Your task to perform on an android device: Open Google Chrome Image 0: 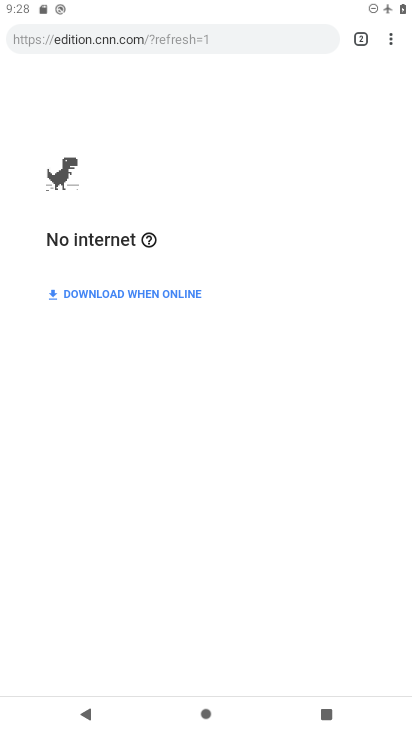
Step 0: press home button
Your task to perform on an android device: Open Google Chrome Image 1: 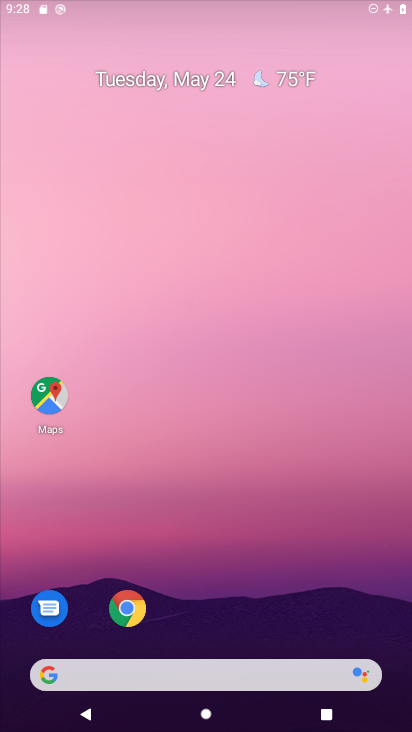
Step 1: click (132, 606)
Your task to perform on an android device: Open Google Chrome Image 2: 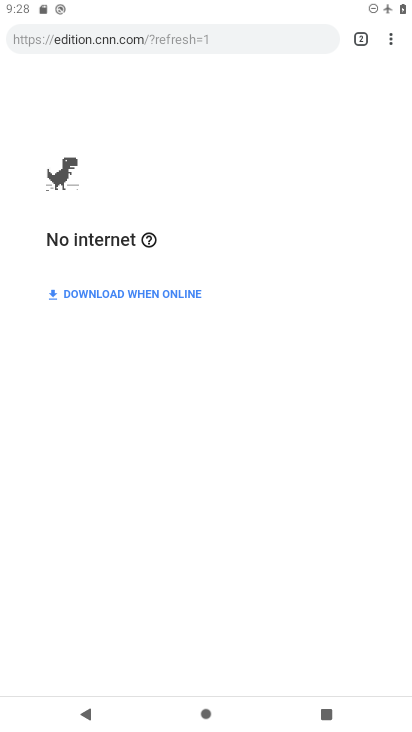
Step 2: task complete